Your task to perform on an android device: add a contact in the contacts app Image 0: 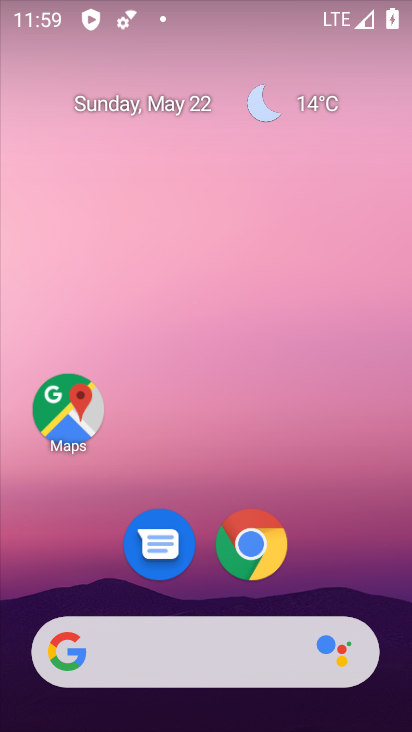
Step 0: click (86, 399)
Your task to perform on an android device: add a contact in the contacts app Image 1: 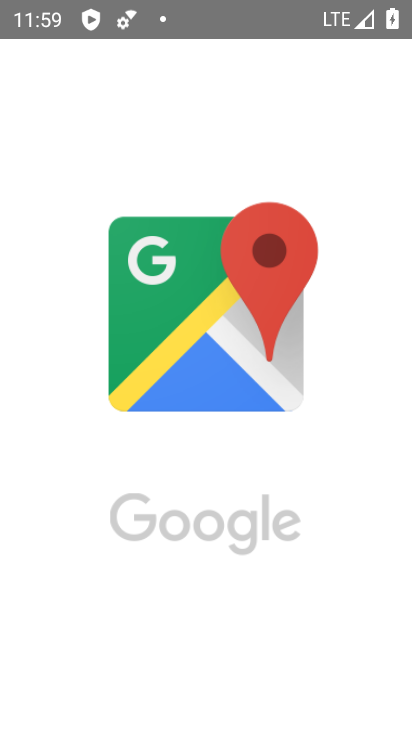
Step 1: press home button
Your task to perform on an android device: add a contact in the contacts app Image 2: 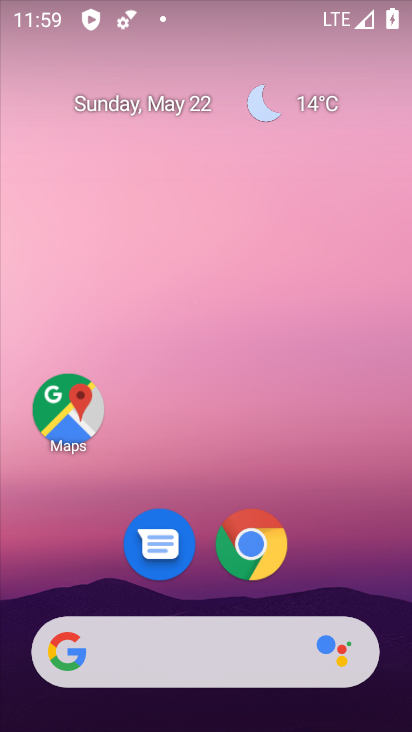
Step 2: drag from (218, 596) to (292, 41)
Your task to perform on an android device: add a contact in the contacts app Image 3: 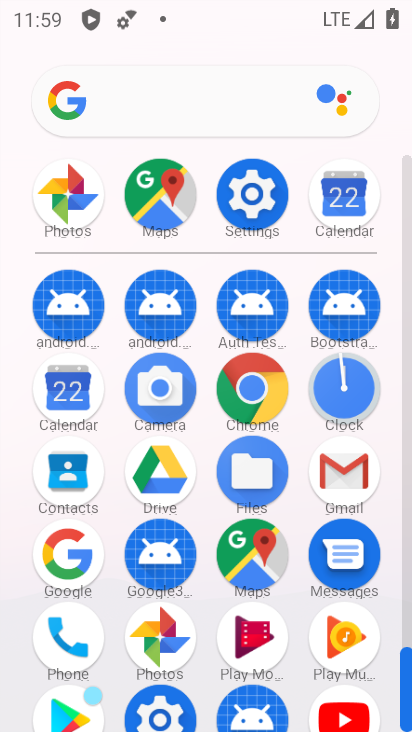
Step 3: click (81, 472)
Your task to perform on an android device: add a contact in the contacts app Image 4: 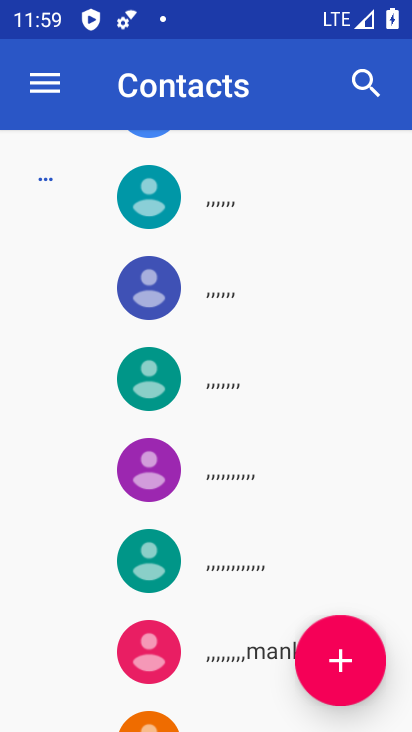
Step 4: click (344, 680)
Your task to perform on an android device: add a contact in the contacts app Image 5: 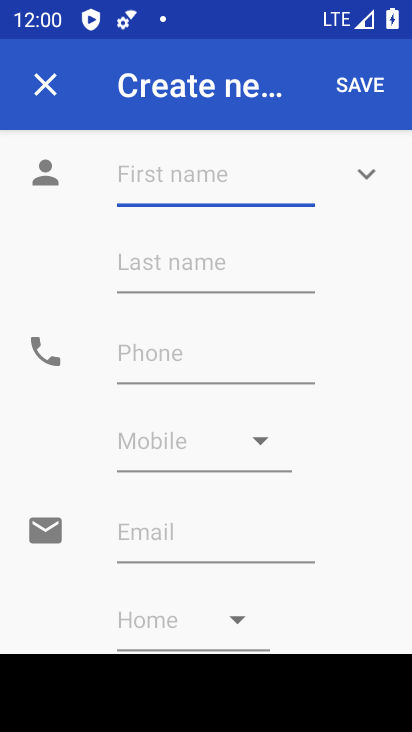
Step 5: type "Ramanna singh"
Your task to perform on an android device: add a contact in the contacts app Image 6: 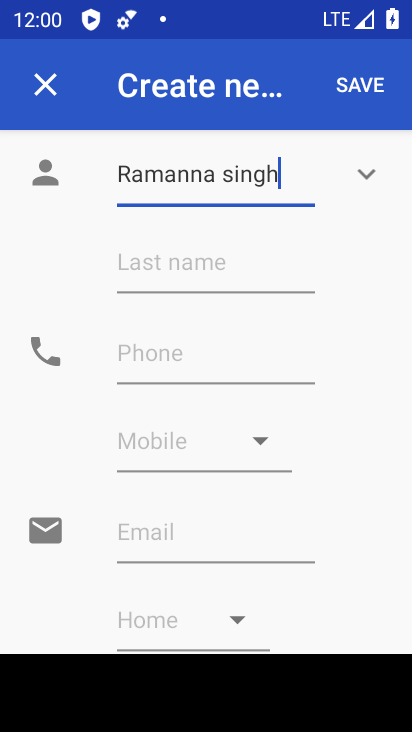
Step 6: click (286, 187)
Your task to perform on an android device: add a contact in the contacts app Image 7: 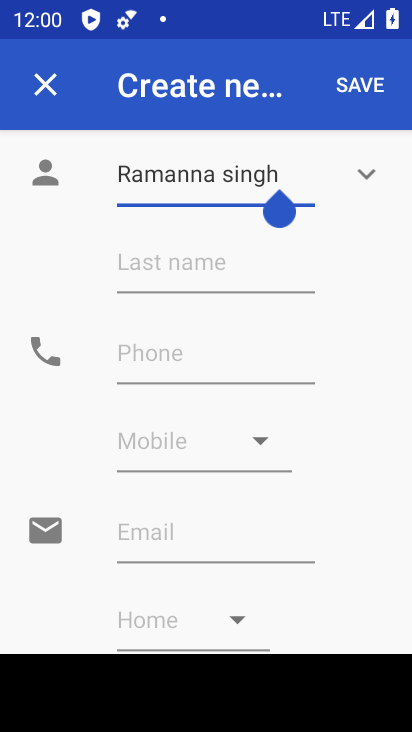
Step 7: click (152, 363)
Your task to perform on an android device: add a contact in the contacts app Image 8: 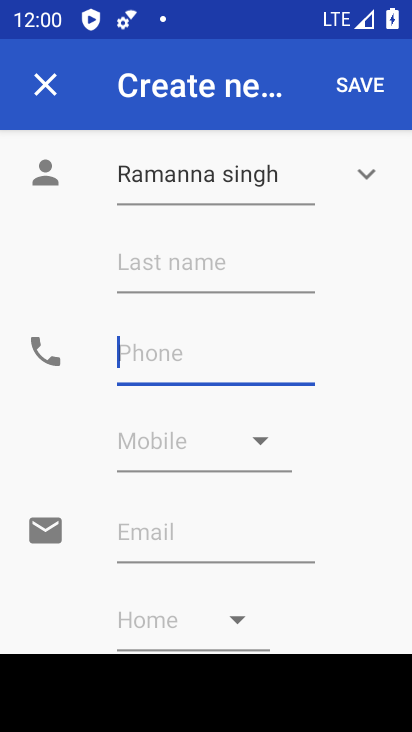
Step 8: type "7878878778"
Your task to perform on an android device: add a contact in the contacts app Image 9: 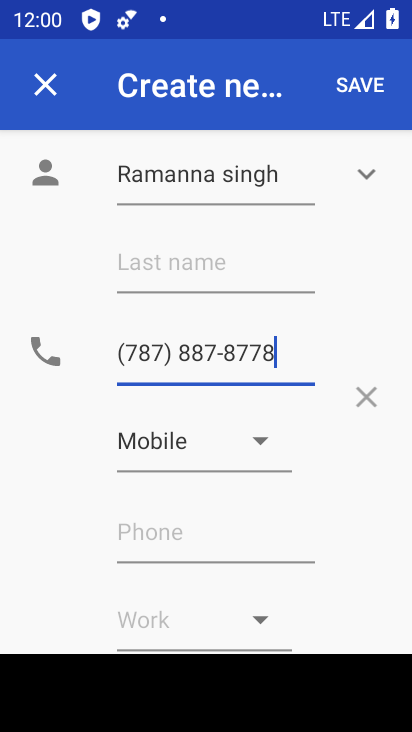
Step 9: click (367, 90)
Your task to perform on an android device: add a contact in the contacts app Image 10: 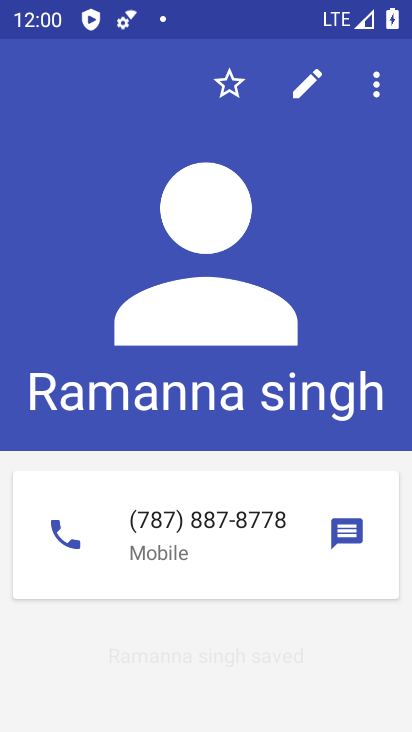
Step 10: task complete